Your task to perform on an android device: clear all cookies in the chrome app Image 0: 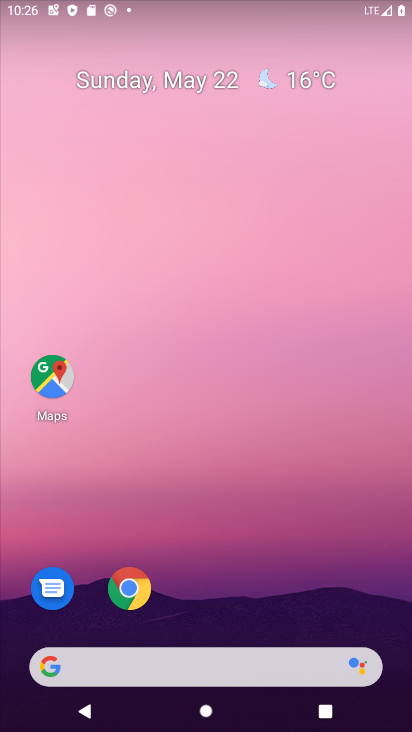
Step 0: click (127, 601)
Your task to perform on an android device: clear all cookies in the chrome app Image 1: 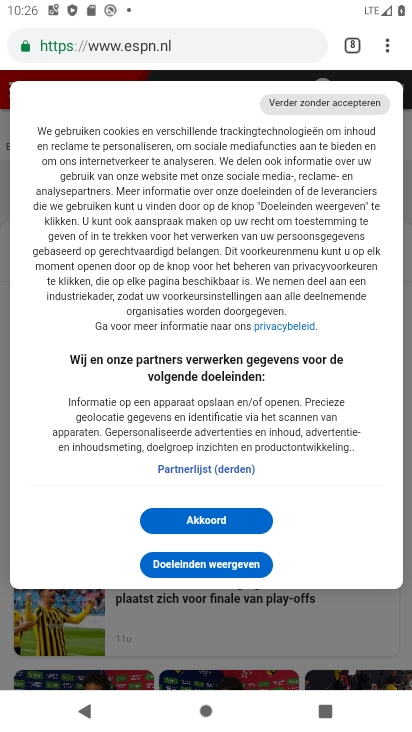
Step 1: click (384, 44)
Your task to perform on an android device: clear all cookies in the chrome app Image 2: 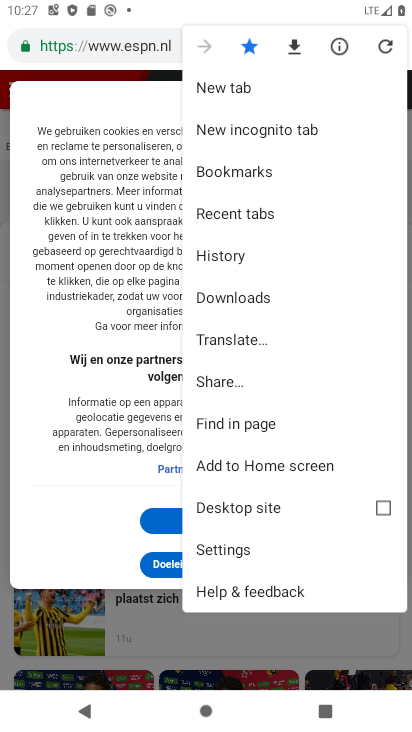
Step 2: click (254, 248)
Your task to perform on an android device: clear all cookies in the chrome app Image 3: 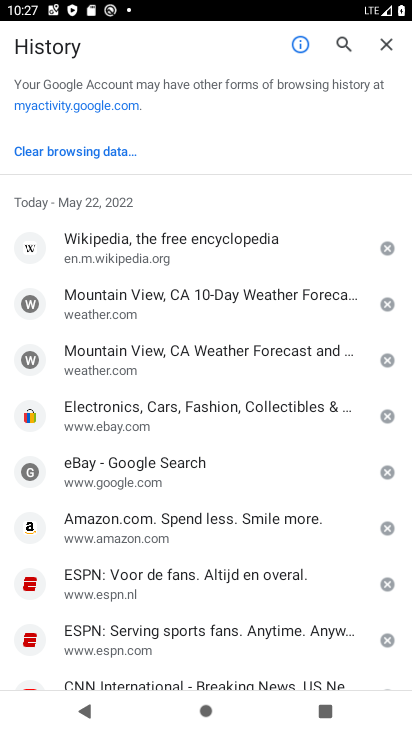
Step 3: click (93, 148)
Your task to perform on an android device: clear all cookies in the chrome app Image 4: 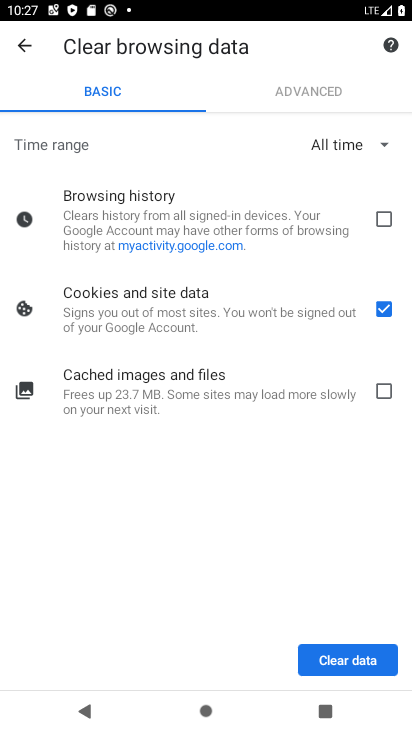
Step 4: click (325, 666)
Your task to perform on an android device: clear all cookies in the chrome app Image 5: 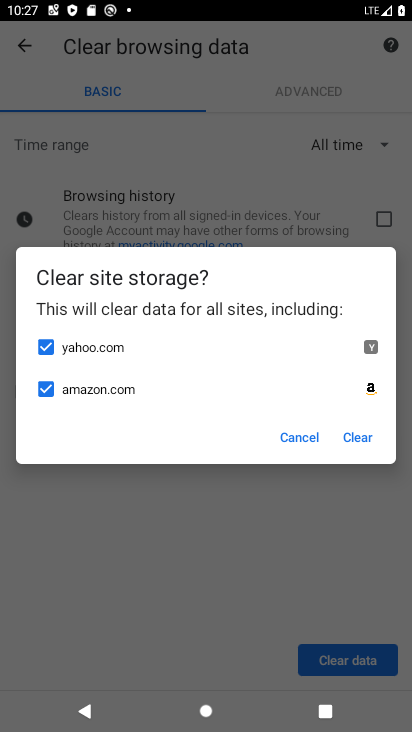
Step 5: click (346, 437)
Your task to perform on an android device: clear all cookies in the chrome app Image 6: 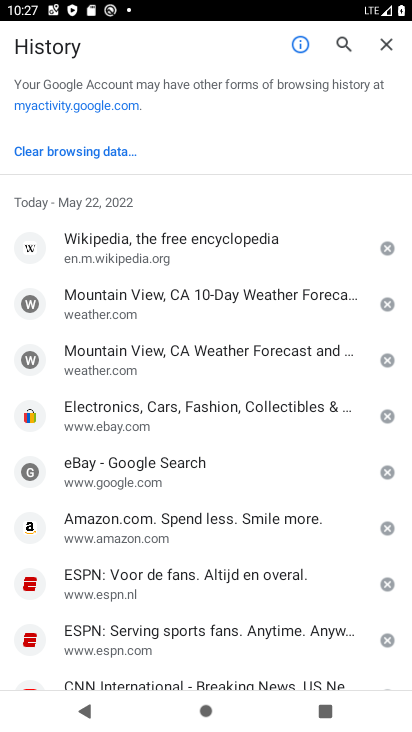
Step 6: task complete